Your task to perform on an android device: Do I have any events today? Image 0: 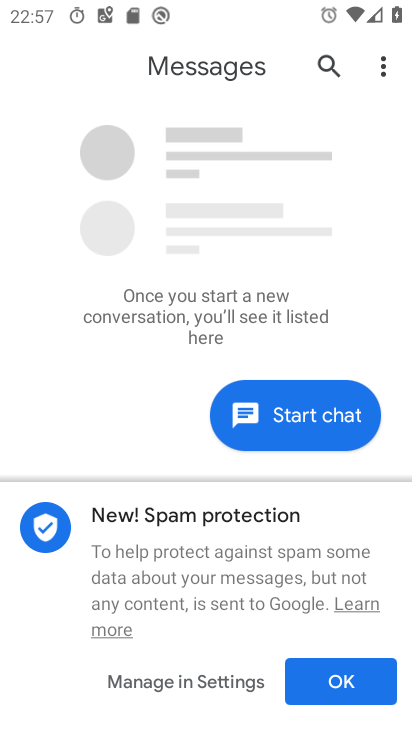
Step 0: press home button
Your task to perform on an android device: Do I have any events today? Image 1: 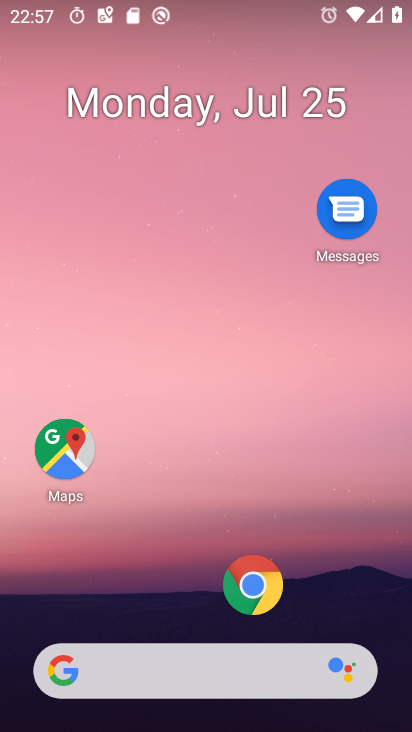
Step 1: drag from (171, 675) to (295, 121)
Your task to perform on an android device: Do I have any events today? Image 2: 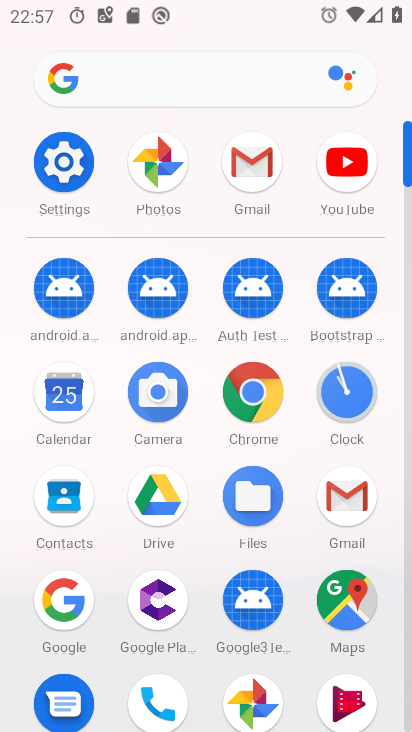
Step 2: click (60, 401)
Your task to perform on an android device: Do I have any events today? Image 3: 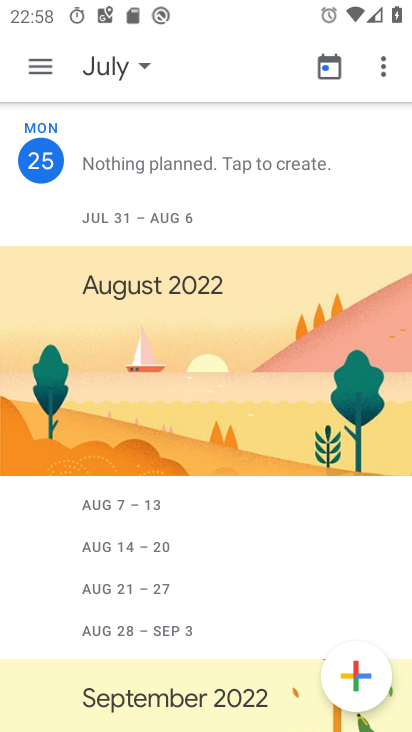
Step 3: task complete